Your task to perform on an android device: Go to accessibility settings Image 0: 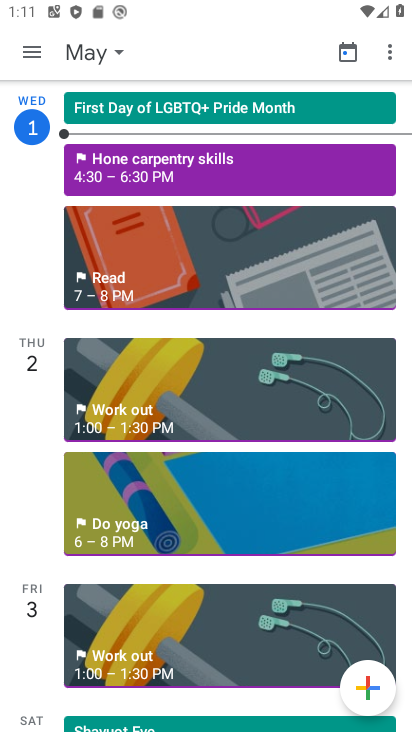
Step 0: task complete